Your task to perform on an android device: Open display settings Image 0: 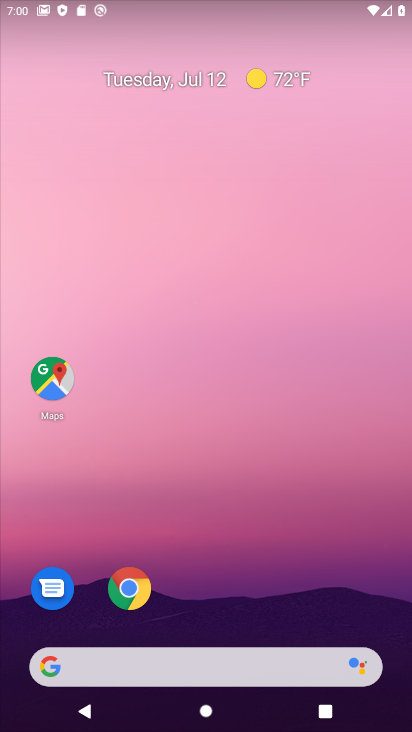
Step 0: drag from (305, 620) to (388, 147)
Your task to perform on an android device: Open display settings Image 1: 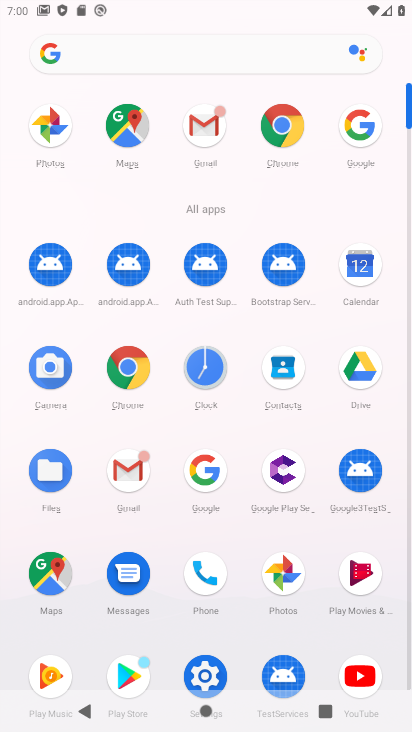
Step 1: click (403, 462)
Your task to perform on an android device: Open display settings Image 2: 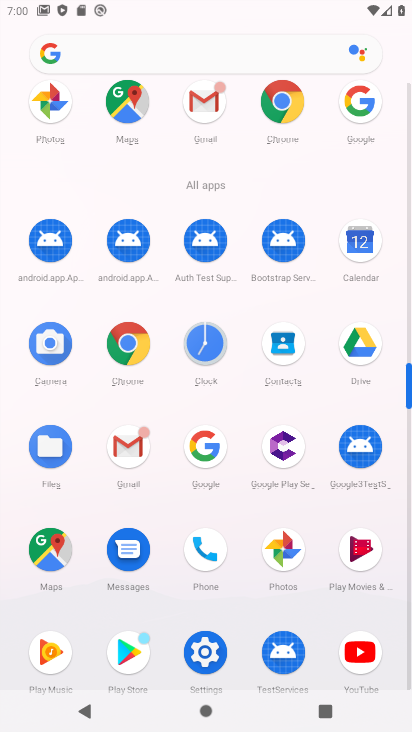
Step 2: click (219, 665)
Your task to perform on an android device: Open display settings Image 3: 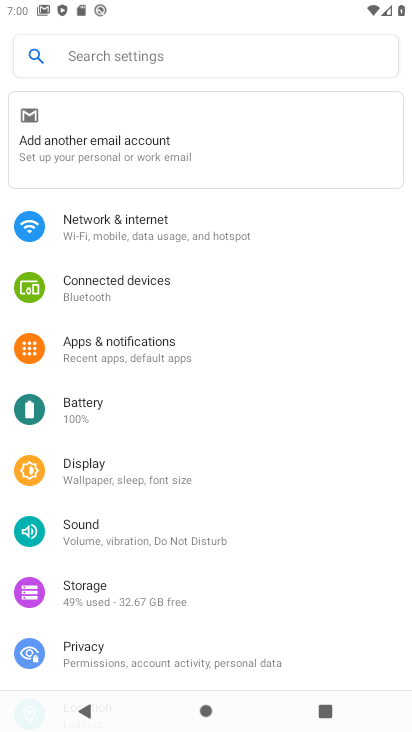
Step 3: click (77, 452)
Your task to perform on an android device: Open display settings Image 4: 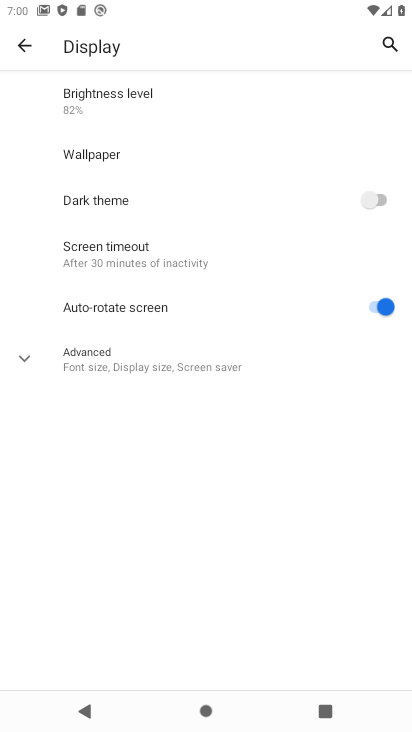
Step 4: task complete